Your task to perform on an android device: Open Google Chrome and click the shortcut for Amazon.com Image 0: 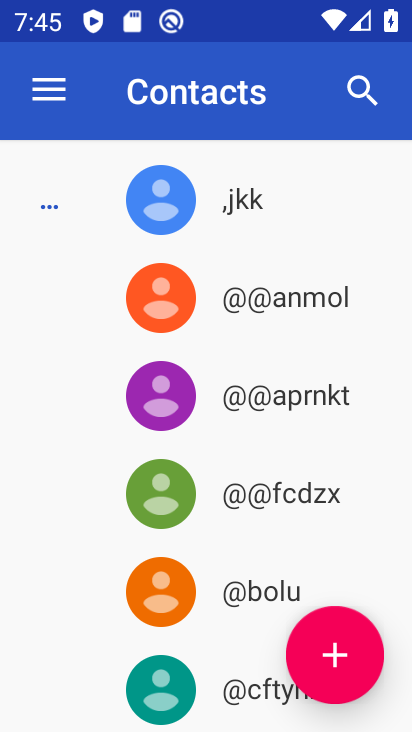
Step 0: press home button
Your task to perform on an android device: Open Google Chrome and click the shortcut for Amazon.com Image 1: 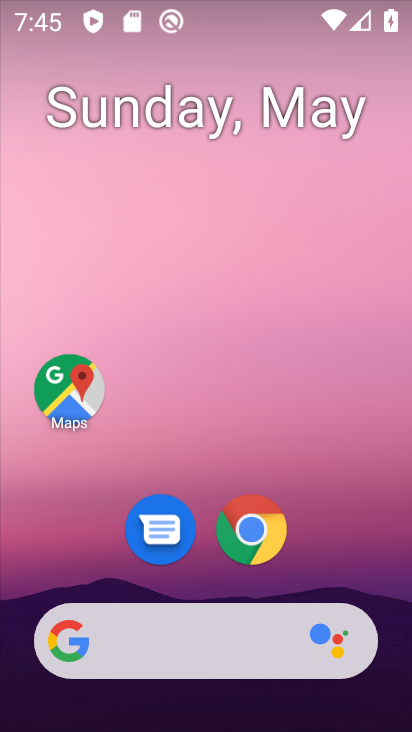
Step 1: drag from (375, 566) to (338, 96)
Your task to perform on an android device: Open Google Chrome and click the shortcut for Amazon.com Image 2: 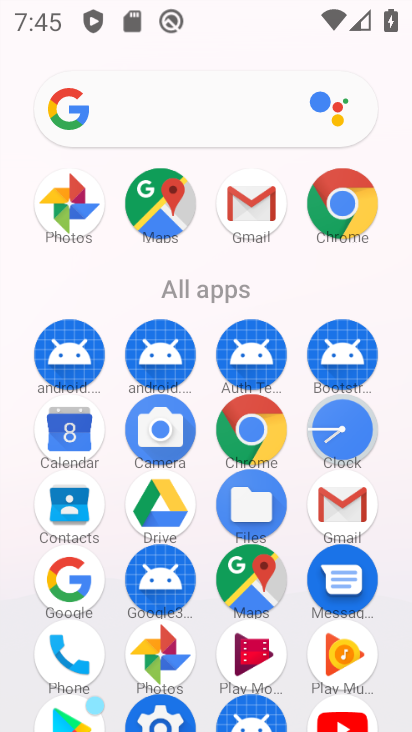
Step 2: click (264, 439)
Your task to perform on an android device: Open Google Chrome and click the shortcut for Amazon.com Image 3: 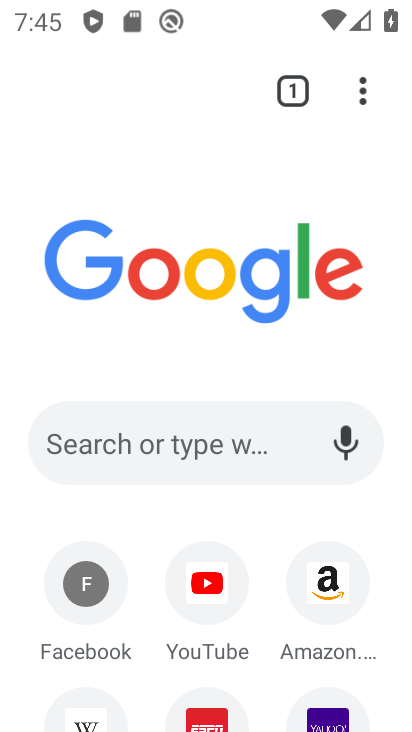
Step 3: click (338, 609)
Your task to perform on an android device: Open Google Chrome and click the shortcut for Amazon.com Image 4: 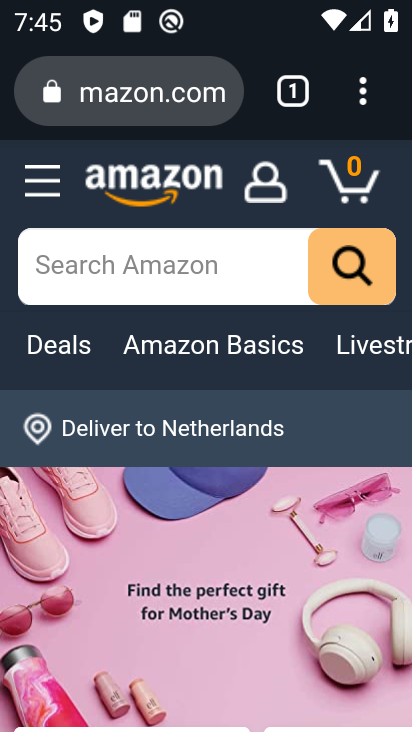
Step 4: task complete